Your task to perform on an android device: change alarm snooze length Image 0: 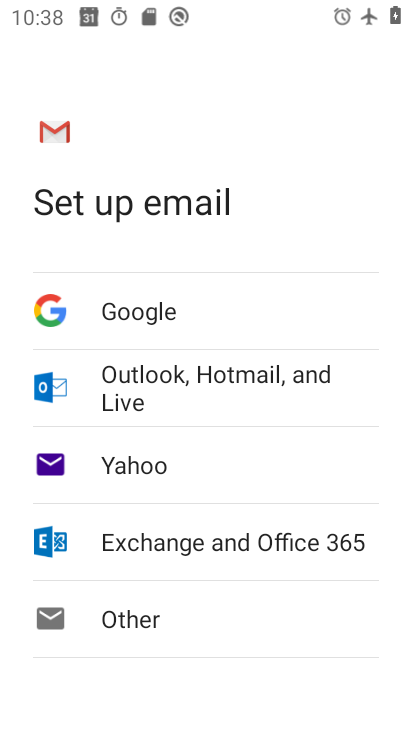
Step 0: press home button
Your task to perform on an android device: change alarm snooze length Image 1: 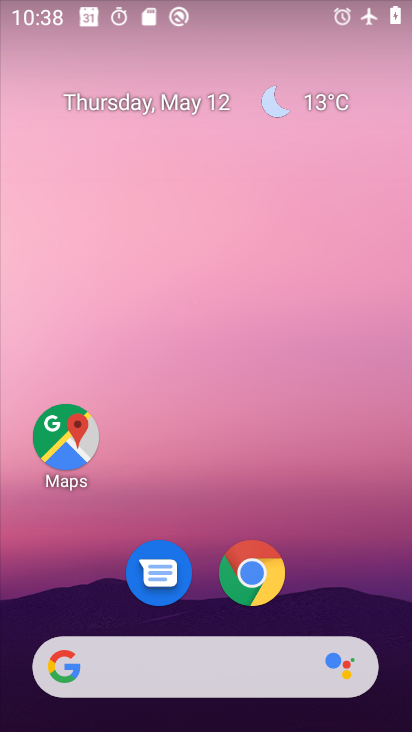
Step 1: drag from (401, 643) to (348, 212)
Your task to perform on an android device: change alarm snooze length Image 2: 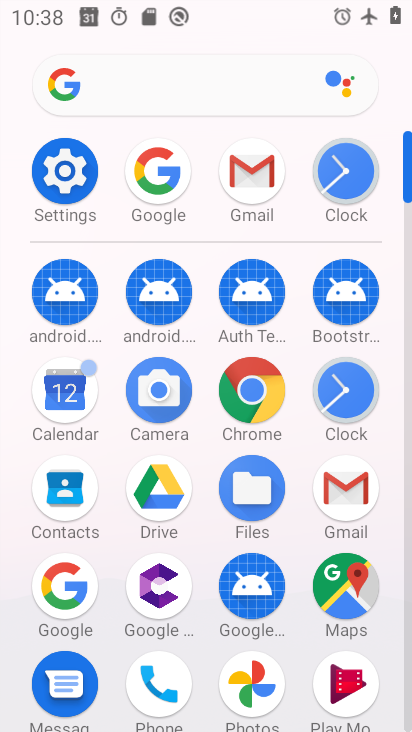
Step 2: click (349, 400)
Your task to perform on an android device: change alarm snooze length Image 3: 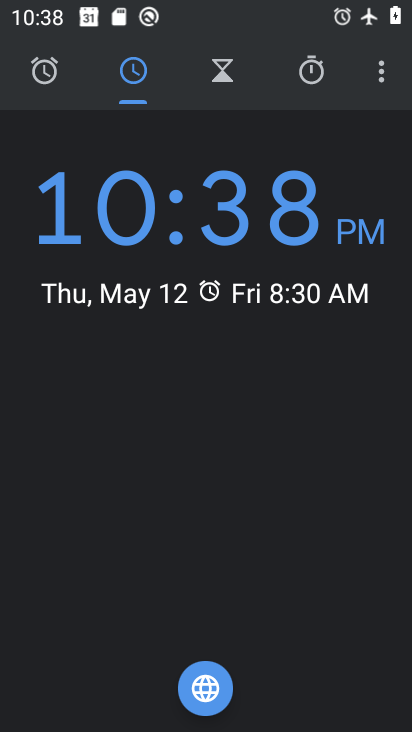
Step 3: click (383, 69)
Your task to perform on an android device: change alarm snooze length Image 4: 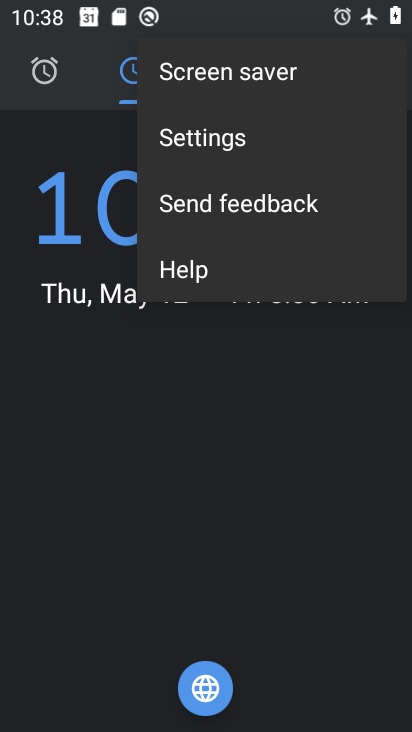
Step 4: click (192, 139)
Your task to perform on an android device: change alarm snooze length Image 5: 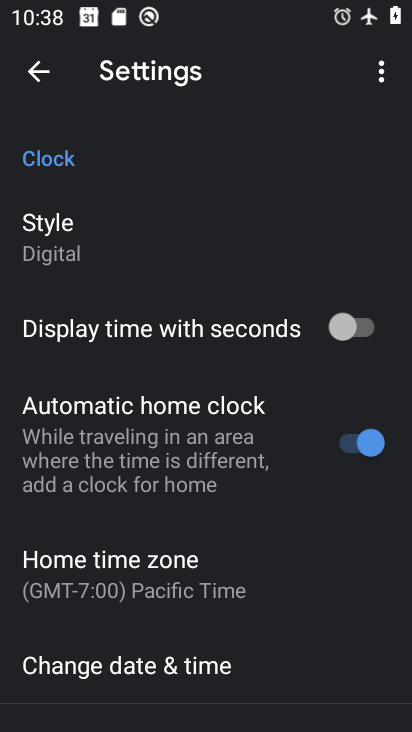
Step 5: drag from (221, 666) to (227, 403)
Your task to perform on an android device: change alarm snooze length Image 6: 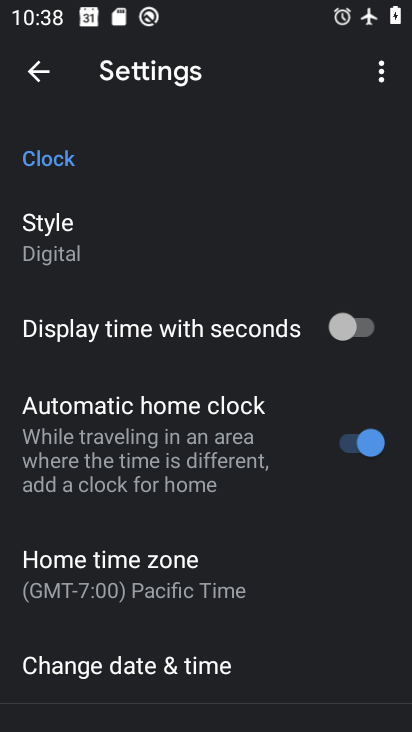
Step 6: drag from (215, 697) to (207, 430)
Your task to perform on an android device: change alarm snooze length Image 7: 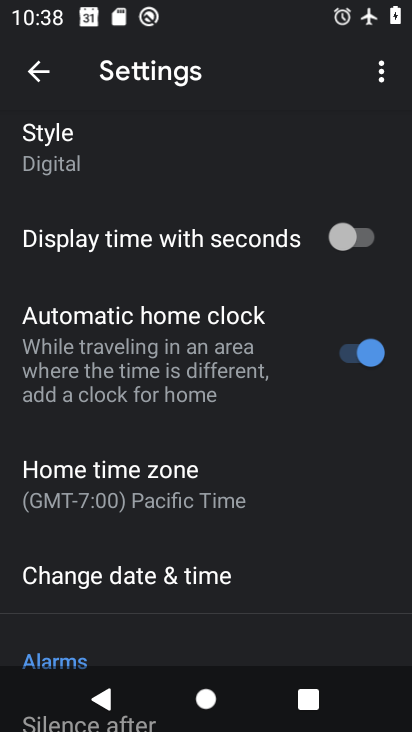
Step 7: drag from (188, 522) to (195, 366)
Your task to perform on an android device: change alarm snooze length Image 8: 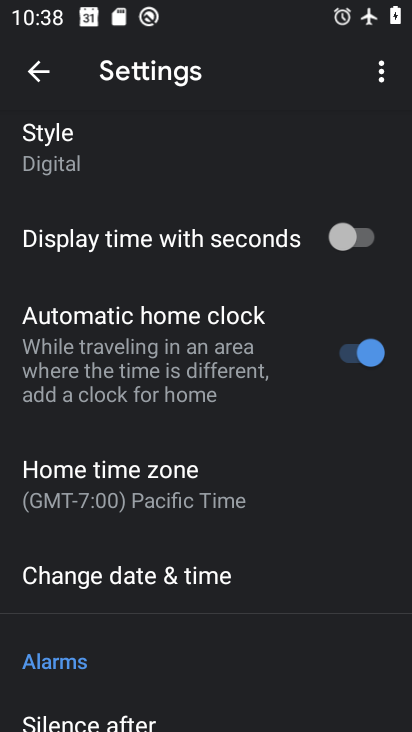
Step 8: drag from (238, 614) to (250, 316)
Your task to perform on an android device: change alarm snooze length Image 9: 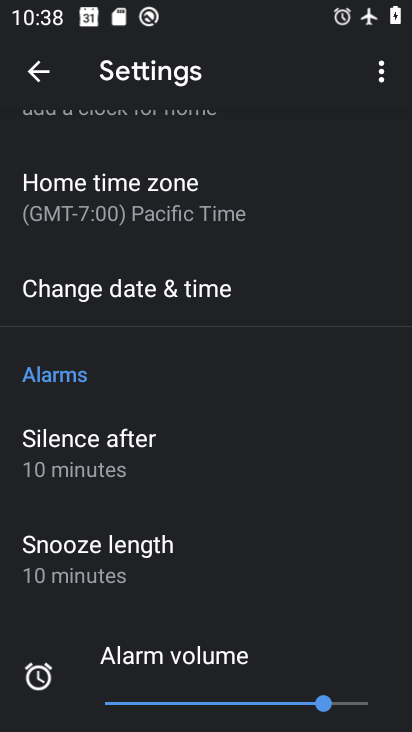
Step 9: click (98, 557)
Your task to perform on an android device: change alarm snooze length Image 10: 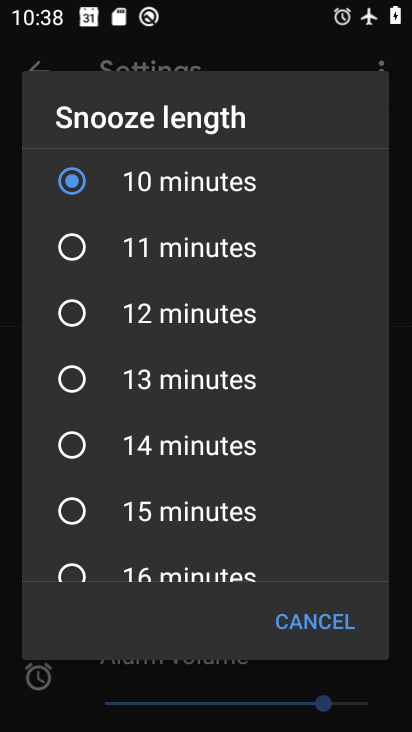
Step 10: click (70, 442)
Your task to perform on an android device: change alarm snooze length Image 11: 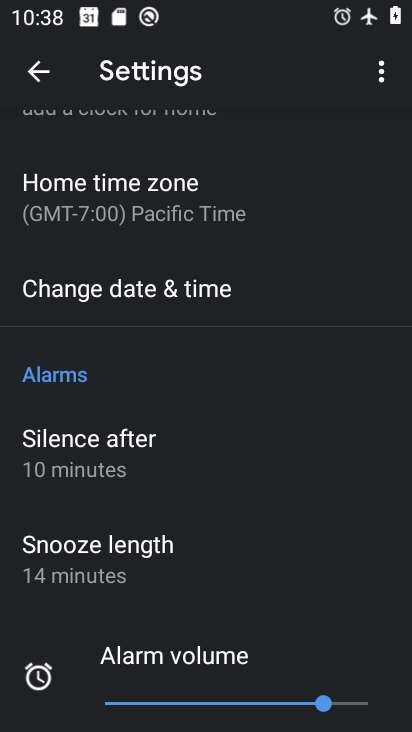
Step 11: task complete